Your task to perform on an android device: check storage Image 0: 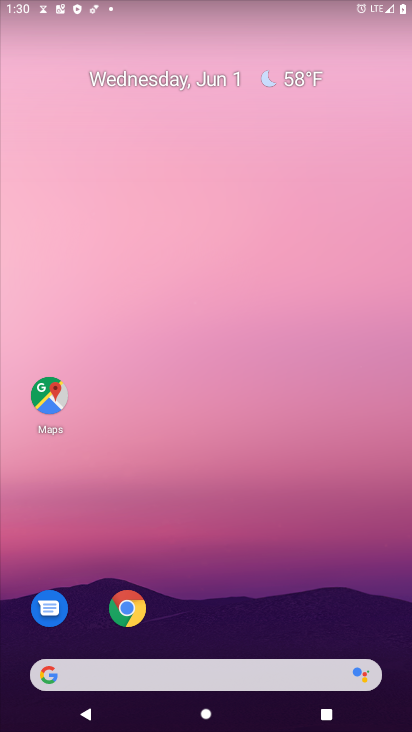
Step 0: drag from (249, 523) to (181, 2)
Your task to perform on an android device: check storage Image 1: 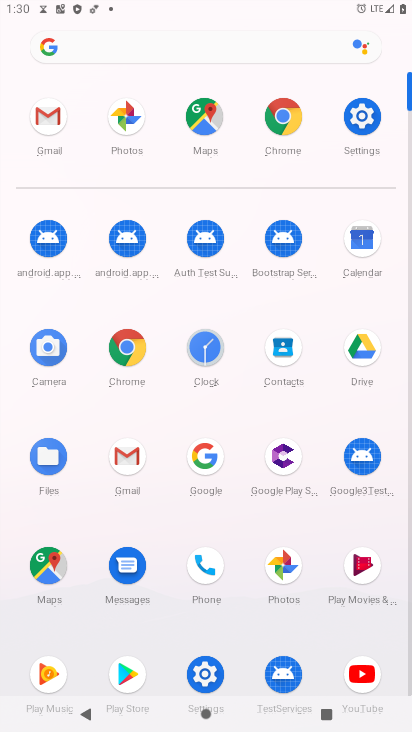
Step 1: click (367, 118)
Your task to perform on an android device: check storage Image 2: 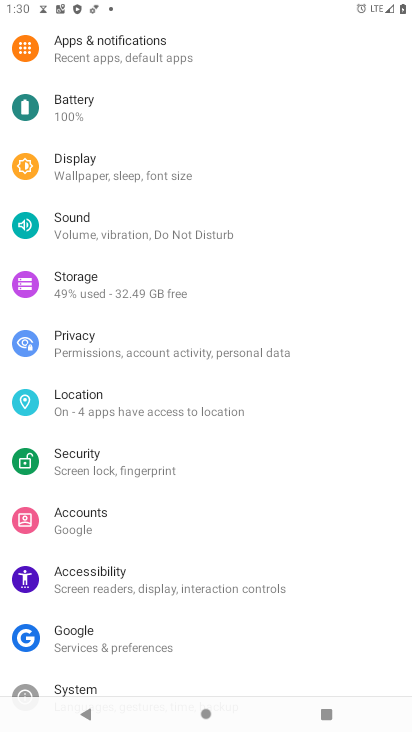
Step 2: drag from (140, 161) to (147, 501)
Your task to perform on an android device: check storage Image 3: 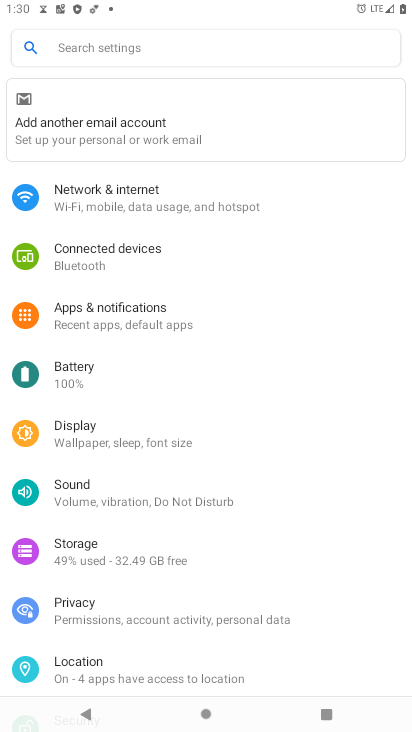
Step 3: drag from (141, 561) to (225, 134)
Your task to perform on an android device: check storage Image 4: 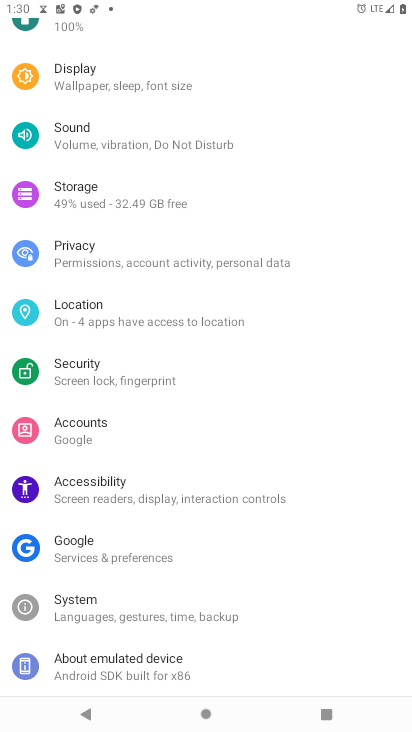
Step 4: drag from (200, 565) to (271, 162)
Your task to perform on an android device: check storage Image 5: 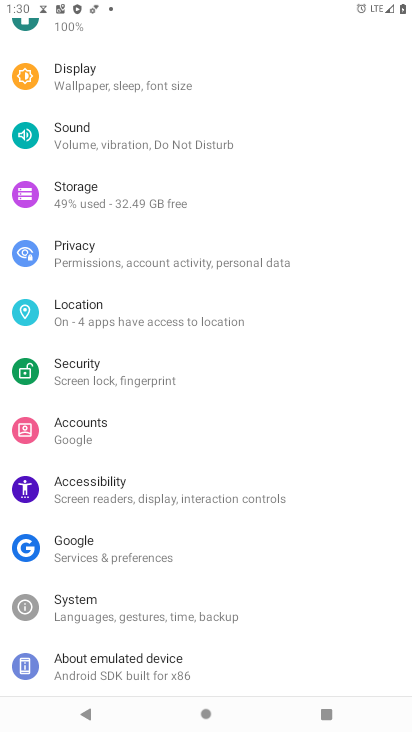
Step 5: click (157, 190)
Your task to perform on an android device: check storage Image 6: 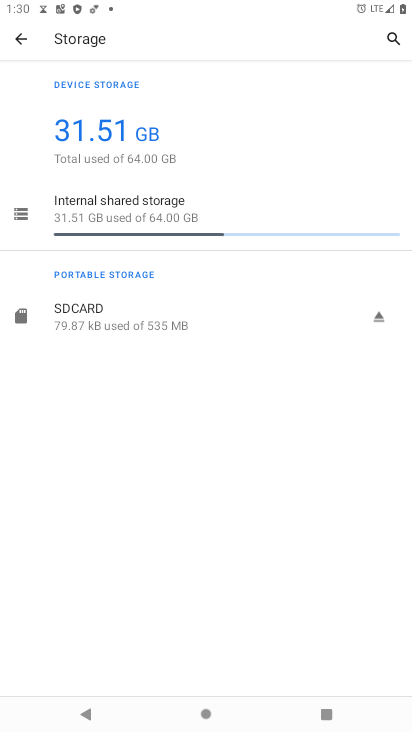
Step 6: task complete